Your task to perform on an android device: make emails show in primary in the gmail app Image 0: 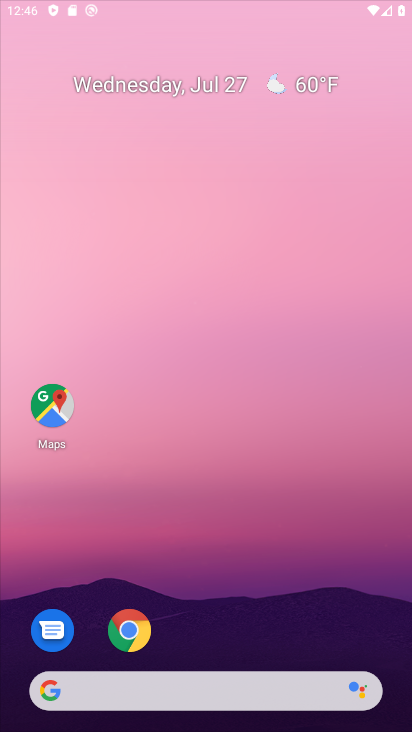
Step 0: press home button
Your task to perform on an android device: make emails show in primary in the gmail app Image 1: 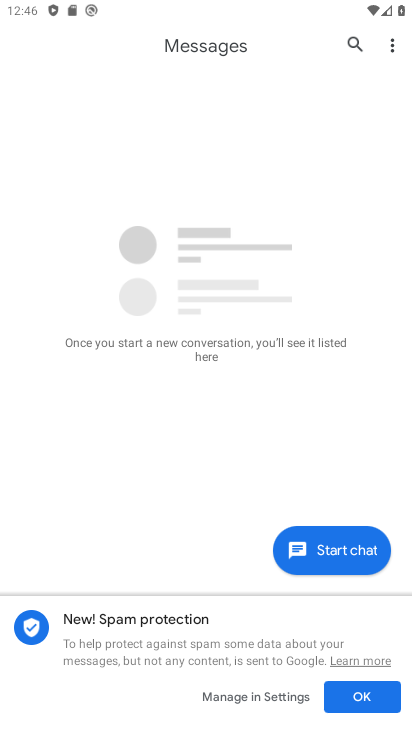
Step 1: drag from (214, 438) to (217, 19)
Your task to perform on an android device: make emails show in primary in the gmail app Image 2: 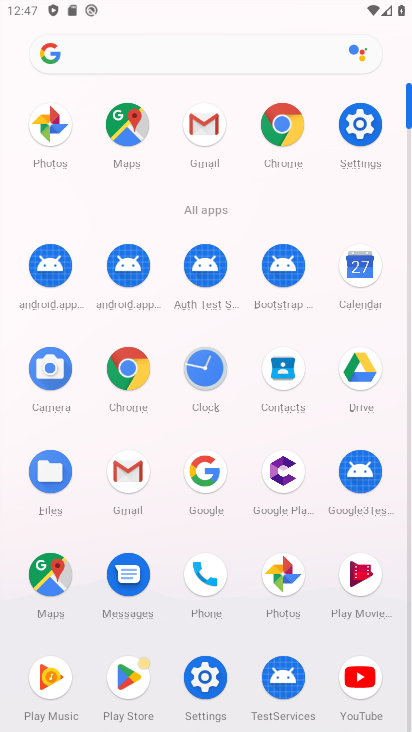
Step 2: click (206, 134)
Your task to perform on an android device: make emails show in primary in the gmail app Image 3: 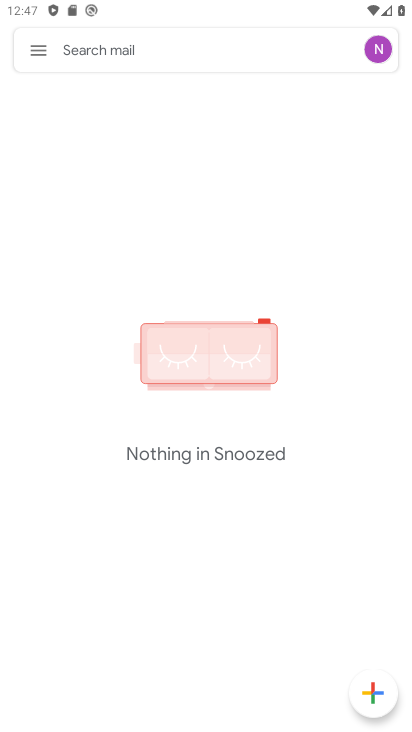
Step 3: click (28, 63)
Your task to perform on an android device: make emails show in primary in the gmail app Image 4: 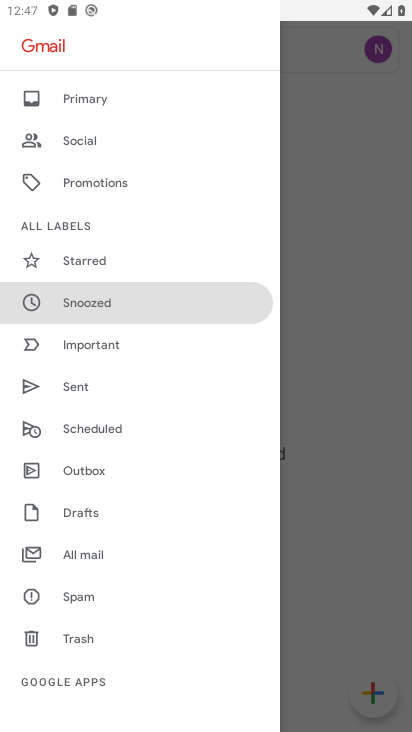
Step 4: drag from (193, 618) to (178, 166)
Your task to perform on an android device: make emails show in primary in the gmail app Image 5: 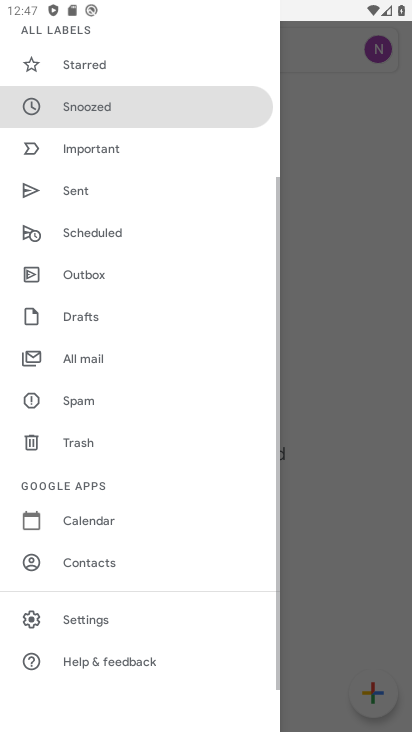
Step 5: click (86, 620)
Your task to perform on an android device: make emails show in primary in the gmail app Image 6: 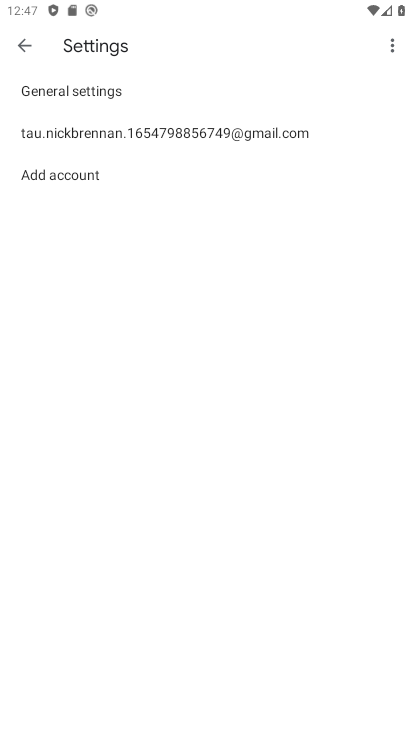
Step 6: click (116, 136)
Your task to perform on an android device: make emails show in primary in the gmail app Image 7: 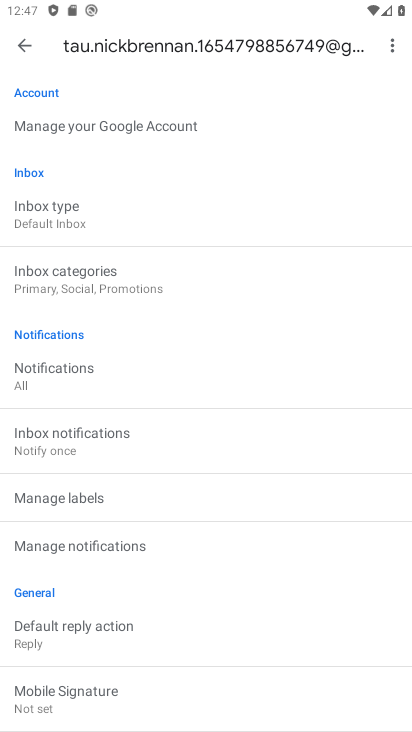
Step 7: click (96, 282)
Your task to perform on an android device: make emails show in primary in the gmail app Image 8: 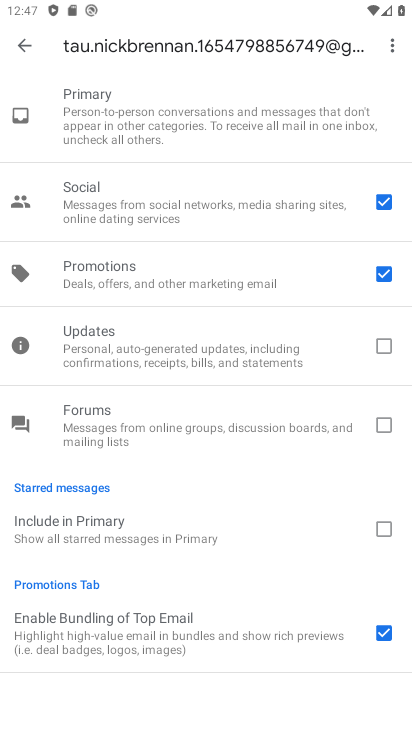
Step 8: click (376, 203)
Your task to perform on an android device: make emails show in primary in the gmail app Image 9: 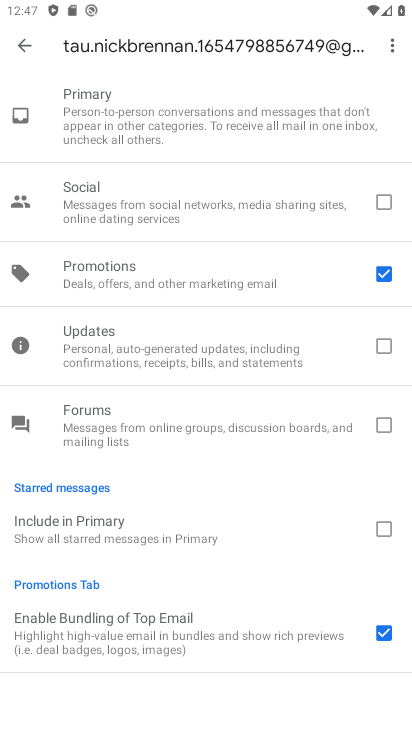
Step 9: click (384, 284)
Your task to perform on an android device: make emails show in primary in the gmail app Image 10: 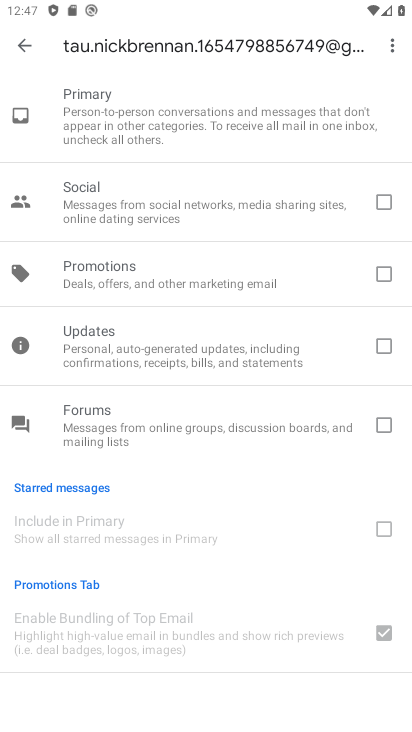
Step 10: task complete